Your task to perform on an android device: Go to eBay Image 0: 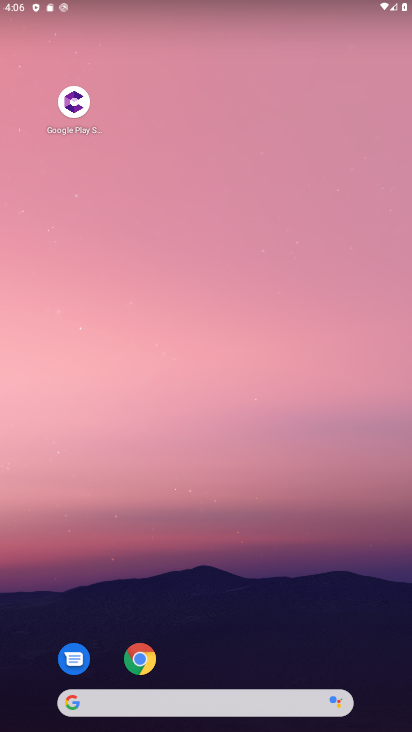
Step 0: drag from (339, 644) to (385, 280)
Your task to perform on an android device: Go to eBay Image 1: 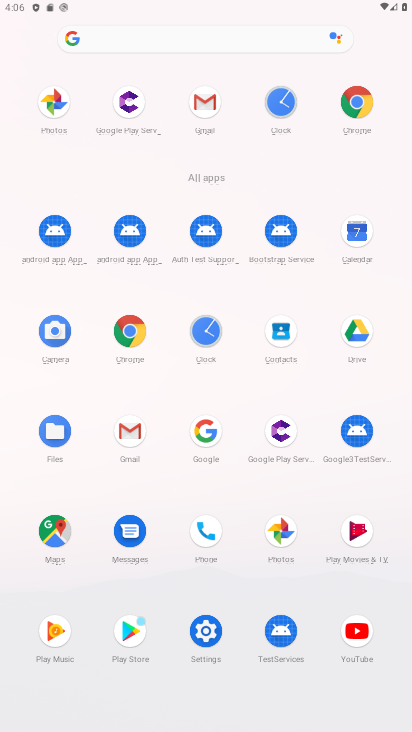
Step 1: click (132, 330)
Your task to perform on an android device: Go to eBay Image 2: 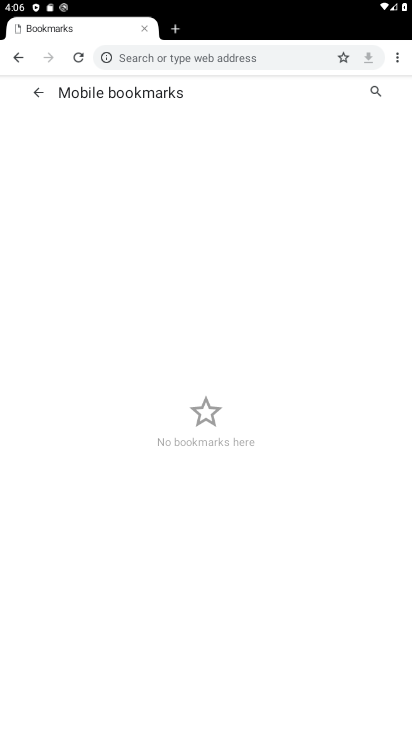
Step 2: click (225, 58)
Your task to perform on an android device: Go to eBay Image 3: 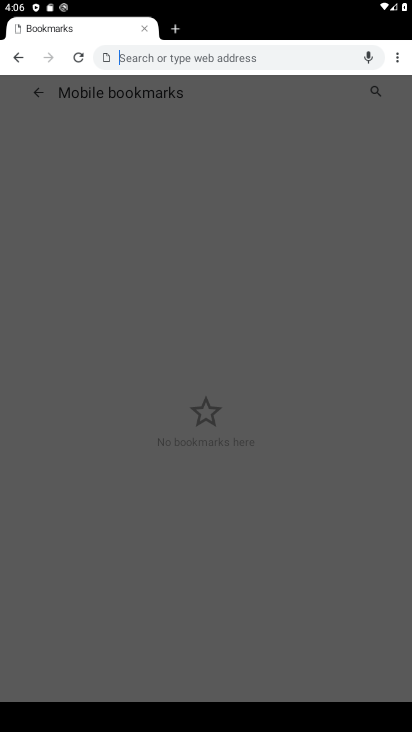
Step 3: type "ebay"
Your task to perform on an android device: Go to eBay Image 4: 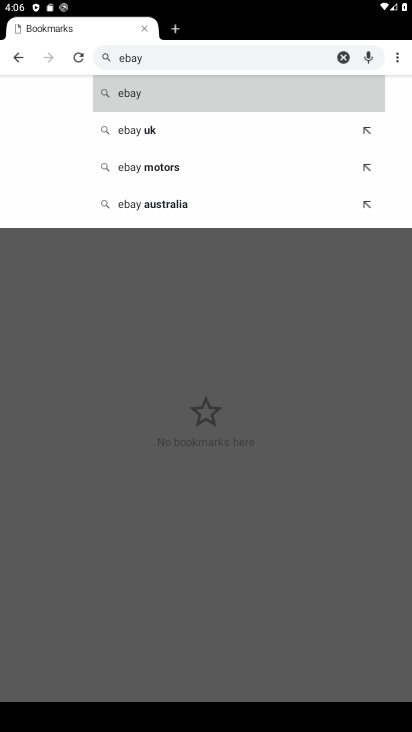
Step 4: click (156, 89)
Your task to perform on an android device: Go to eBay Image 5: 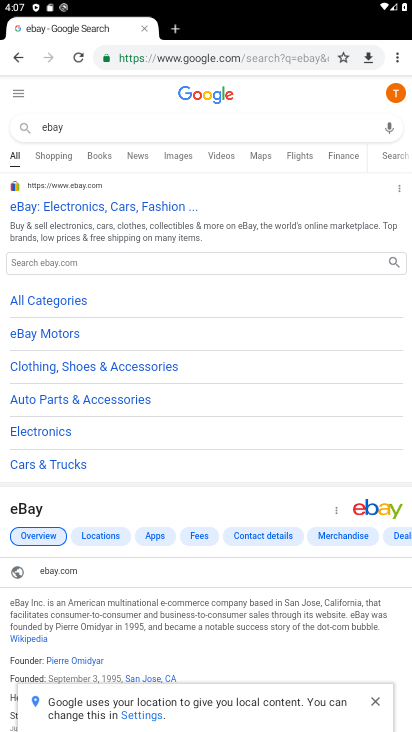
Step 5: task complete